Your task to perform on an android device: Show me popular games on the Play Store Image 0: 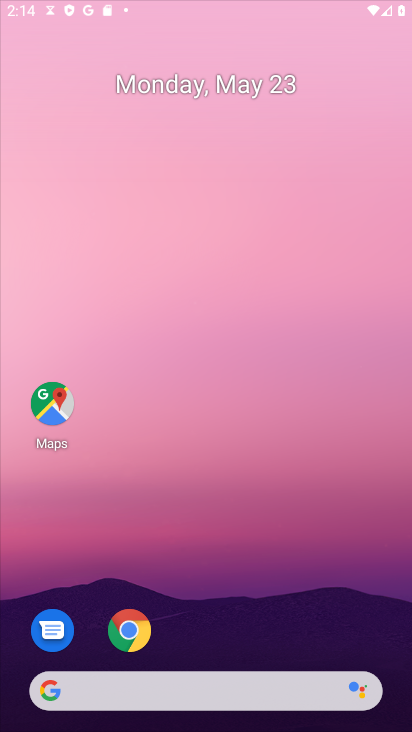
Step 0: drag from (309, 606) to (252, 200)
Your task to perform on an android device: Show me popular games on the Play Store Image 1: 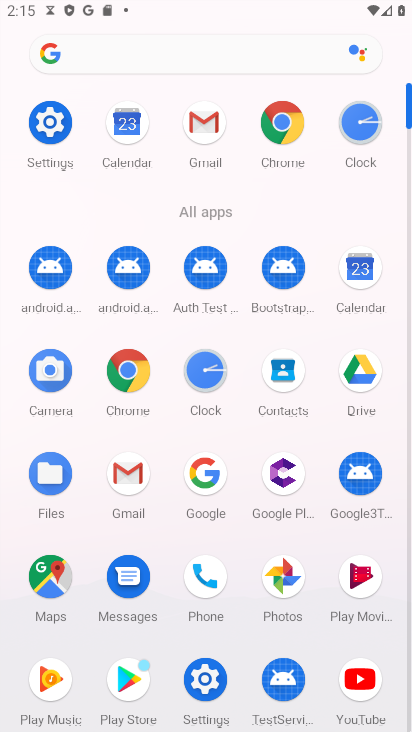
Step 1: drag from (389, 612) to (367, 296)
Your task to perform on an android device: Show me popular games on the Play Store Image 2: 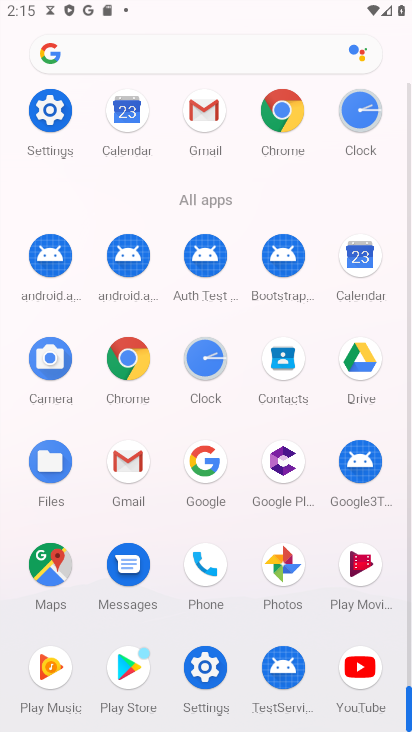
Step 2: click (109, 659)
Your task to perform on an android device: Show me popular games on the Play Store Image 3: 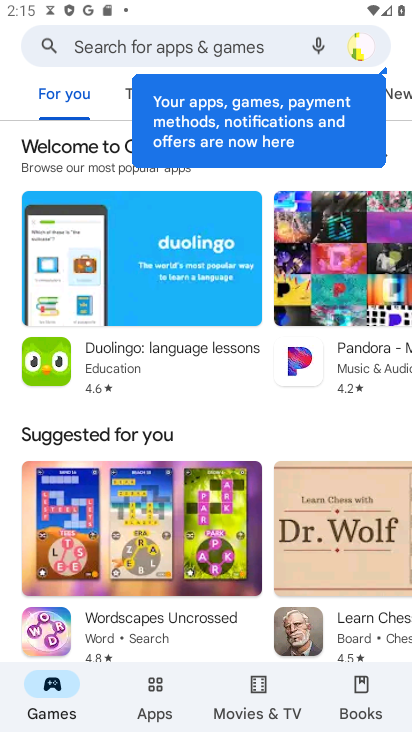
Step 3: click (185, 50)
Your task to perform on an android device: Show me popular games on the Play Store Image 4: 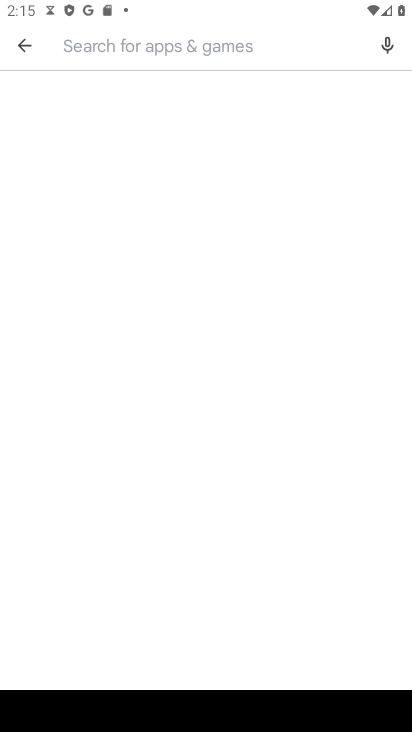
Step 4: type "popular games"
Your task to perform on an android device: Show me popular games on the Play Store Image 5: 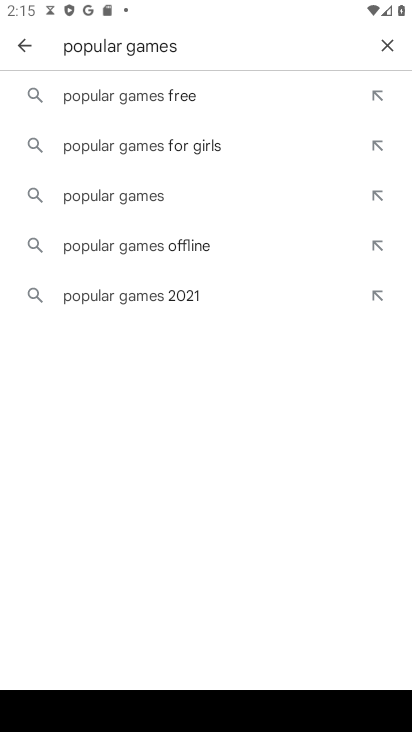
Step 5: click (94, 200)
Your task to perform on an android device: Show me popular games on the Play Store Image 6: 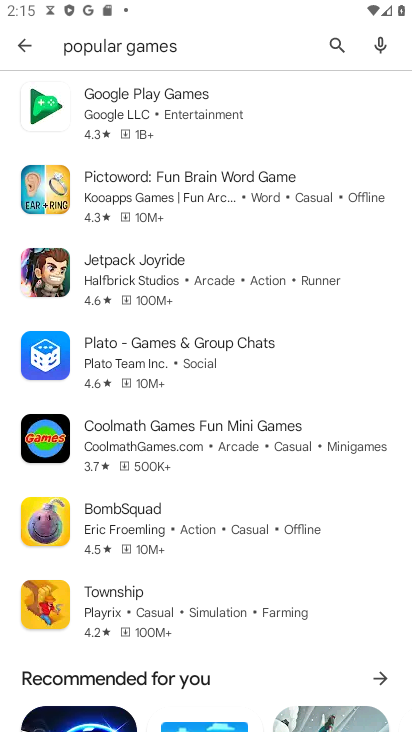
Step 6: task complete